Your task to perform on an android device: see sites visited before in the chrome app Image 0: 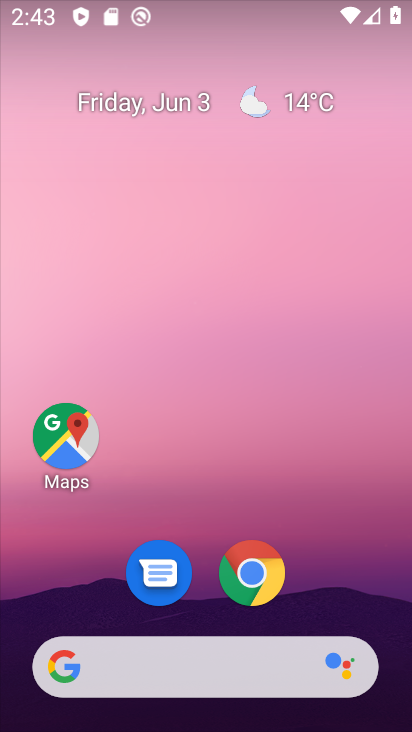
Step 0: drag from (312, 577) to (325, 139)
Your task to perform on an android device: see sites visited before in the chrome app Image 1: 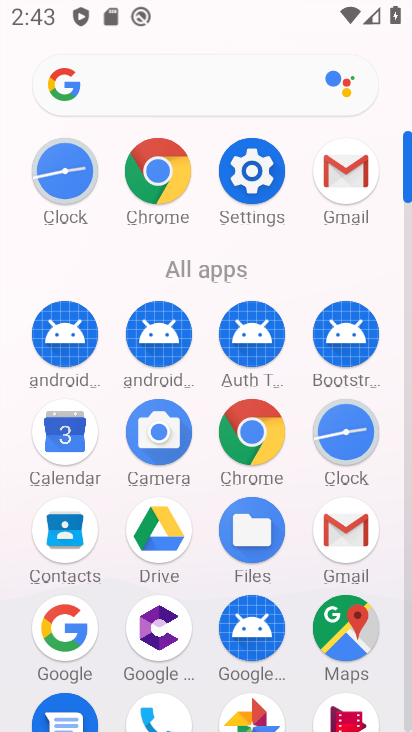
Step 1: click (244, 451)
Your task to perform on an android device: see sites visited before in the chrome app Image 2: 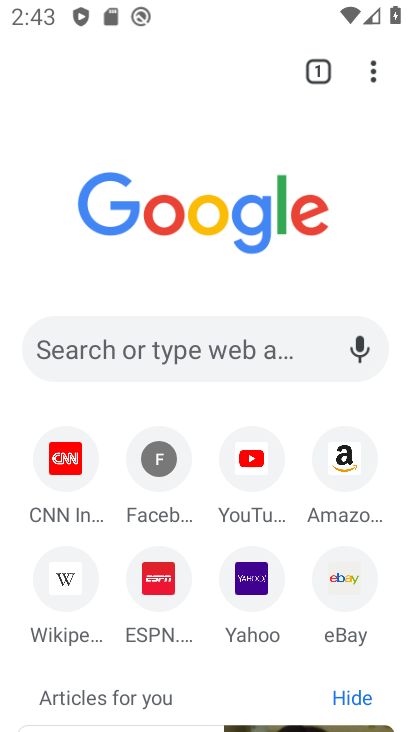
Step 2: task complete